Your task to perform on an android device: change the clock display to analog Image 0: 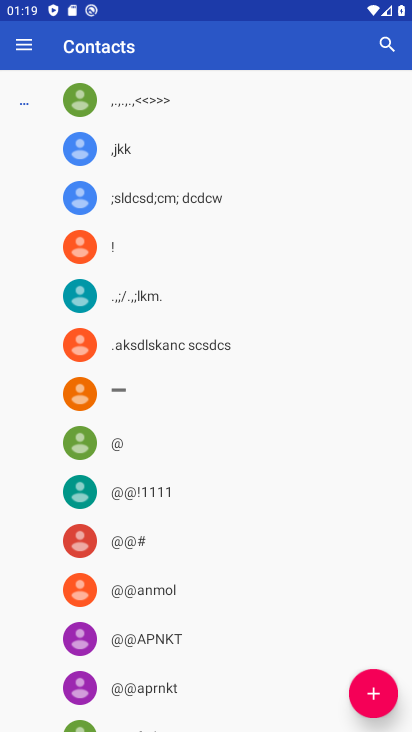
Step 0: press home button
Your task to perform on an android device: change the clock display to analog Image 1: 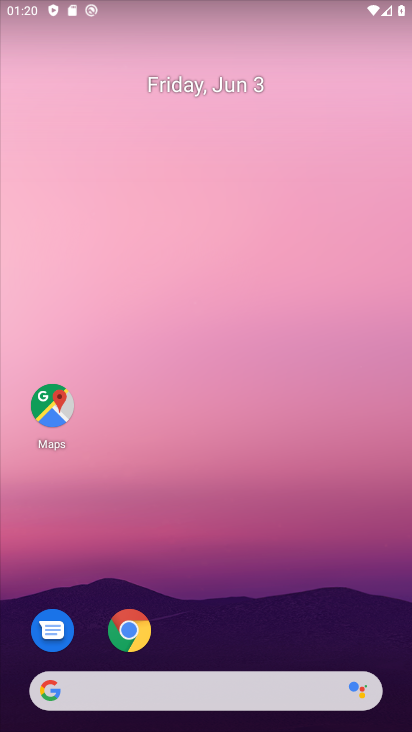
Step 1: drag from (315, 650) to (218, 266)
Your task to perform on an android device: change the clock display to analog Image 2: 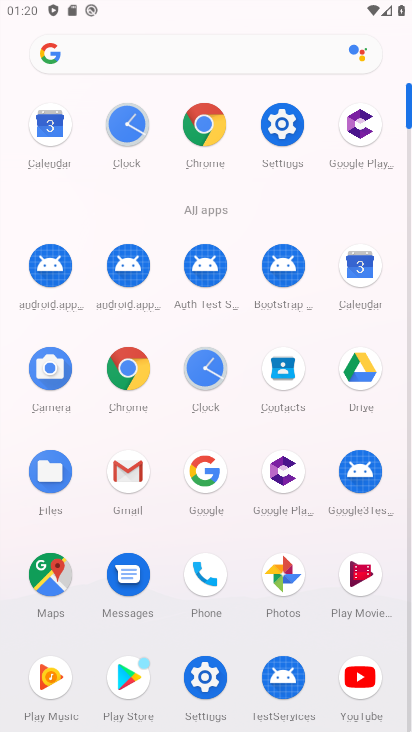
Step 2: click (294, 133)
Your task to perform on an android device: change the clock display to analog Image 3: 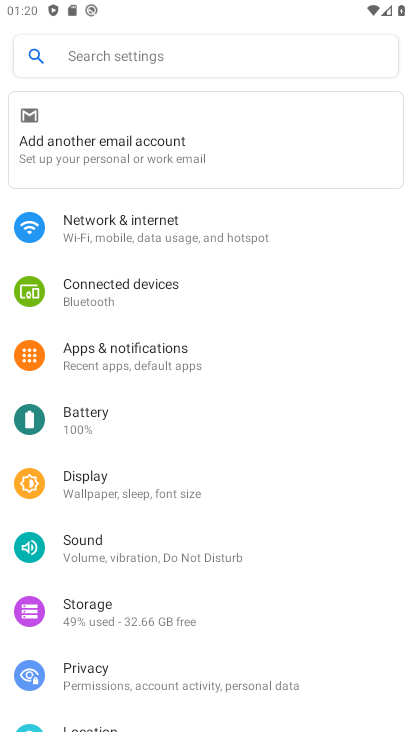
Step 3: press home button
Your task to perform on an android device: change the clock display to analog Image 4: 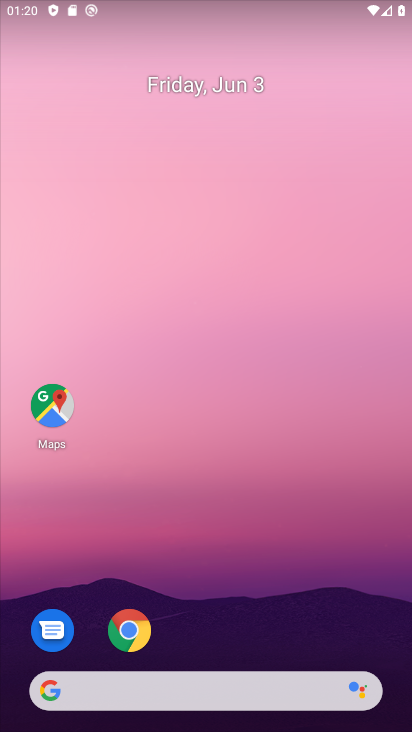
Step 4: drag from (283, 645) to (221, 301)
Your task to perform on an android device: change the clock display to analog Image 5: 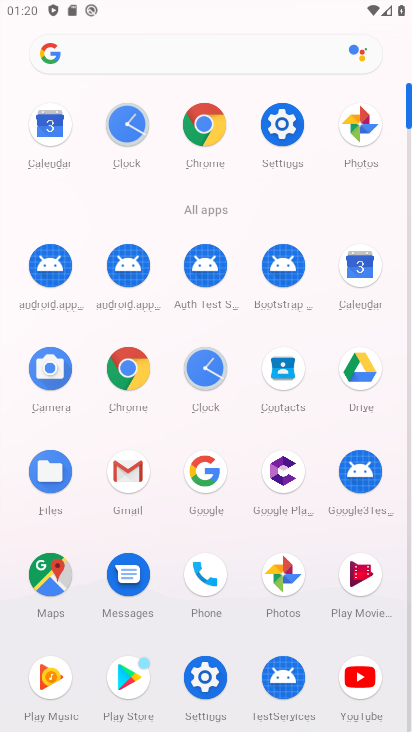
Step 5: click (218, 370)
Your task to perform on an android device: change the clock display to analog Image 6: 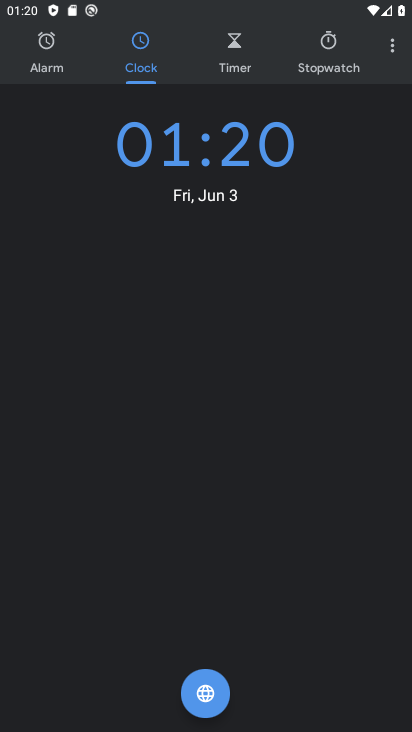
Step 6: click (394, 62)
Your task to perform on an android device: change the clock display to analog Image 7: 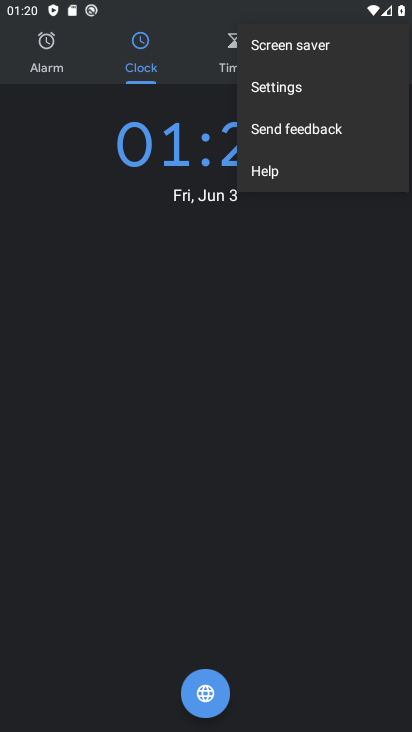
Step 7: click (334, 91)
Your task to perform on an android device: change the clock display to analog Image 8: 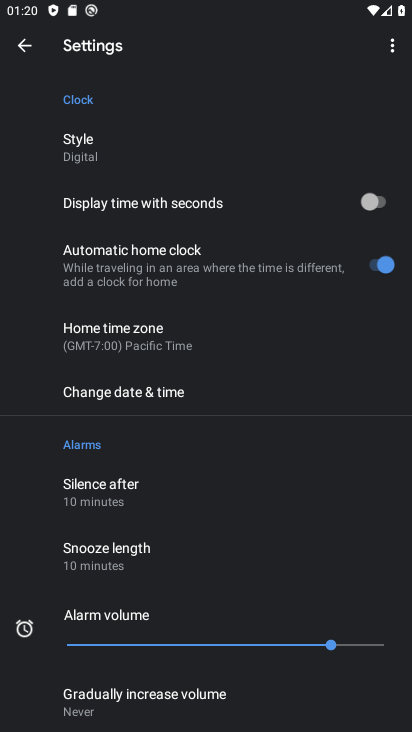
Step 8: click (136, 141)
Your task to perform on an android device: change the clock display to analog Image 9: 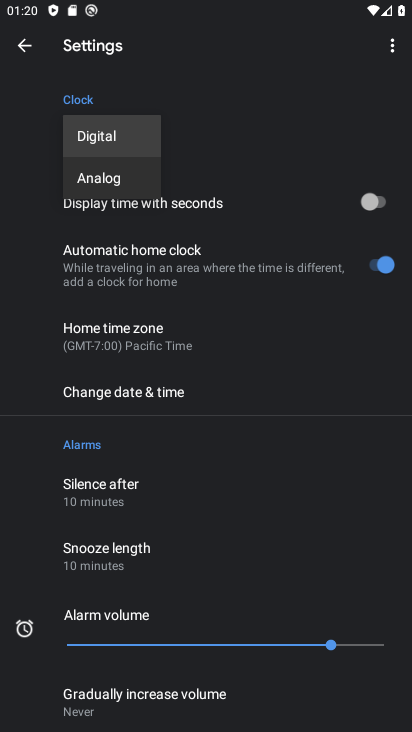
Step 9: click (139, 178)
Your task to perform on an android device: change the clock display to analog Image 10: 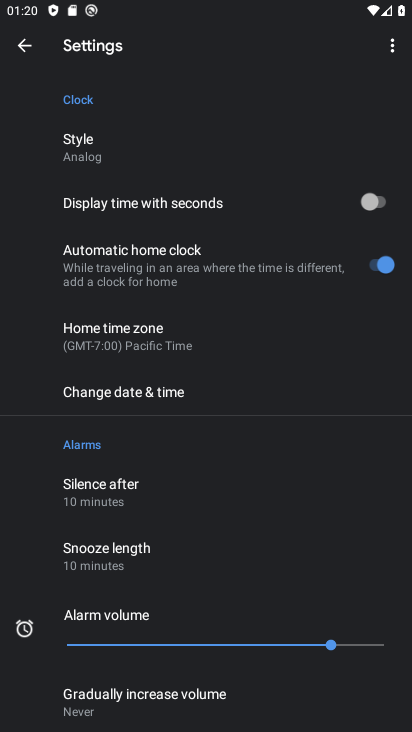
Step 10: task complete